Your task to perform on an android device: Open Yahoo.com Image 0: 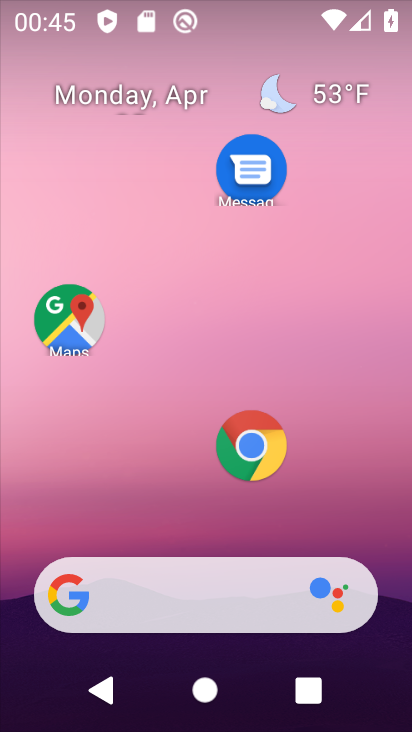
Step 0: click (253, 442)
Your task to perform on an android device: Open Yahoo.com Image 1: 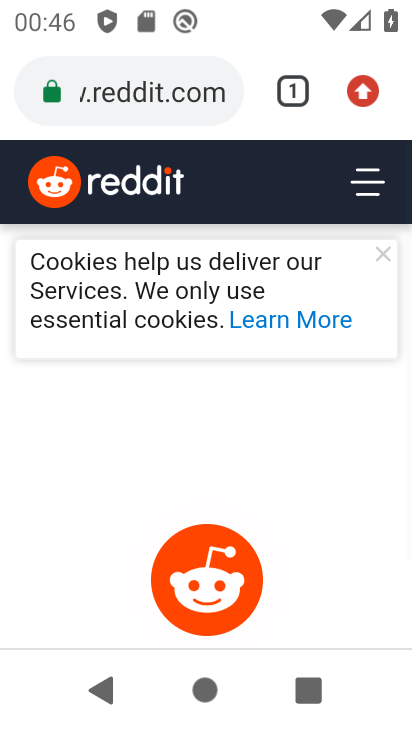
Step 1: click (162, 84)
Your task to perform on an android device: Open Yahoo.com Image 2: 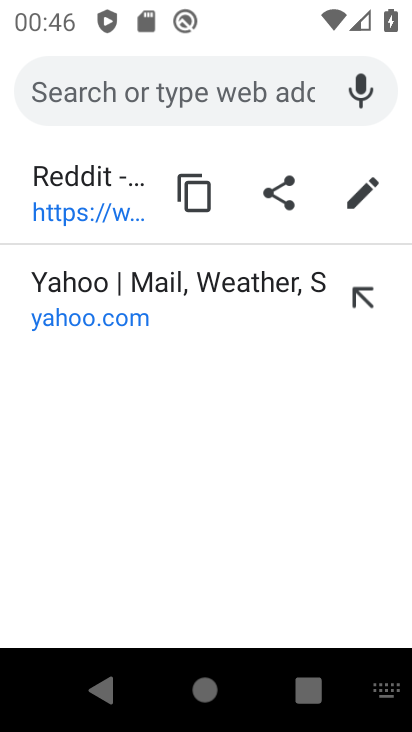
Step 2: type "yahoo.com"
Your task to perform on an android device: Open Yahoo.com Image 3: 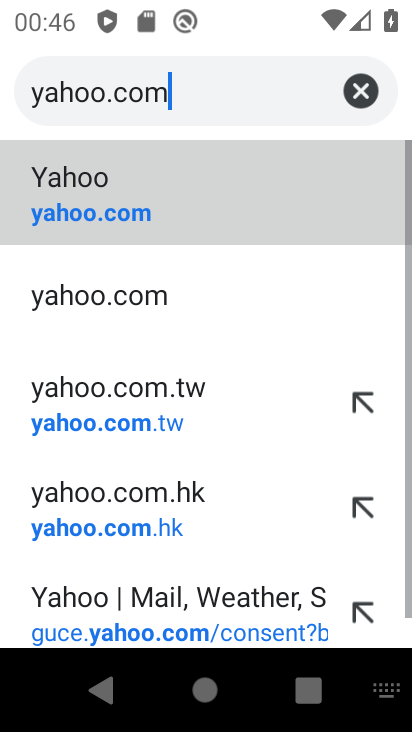
Step 3: click (149, 203)
Your task to perform on an android device: Open Yahoo.com Image 4: 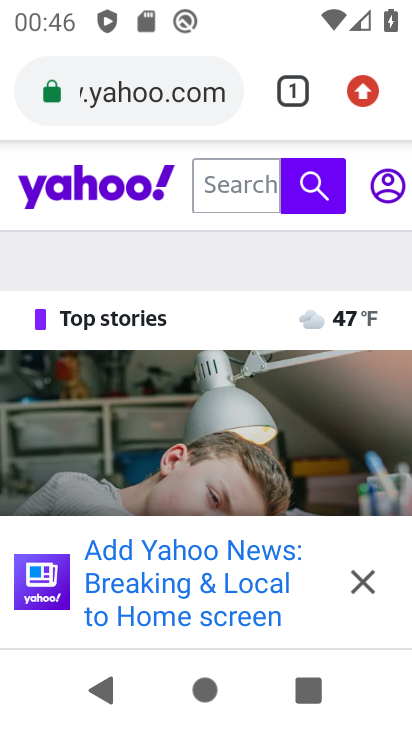
Step 4: task complete